Your task to perform on an android device: toggle notification dots Image 0: 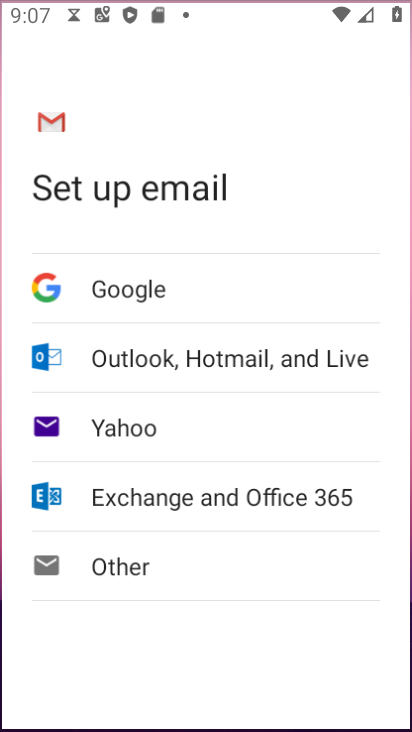
Step 0: drag from (317, 704) to (207, 195)
Your task to perform on an android device: toggle notification dots Image 1: 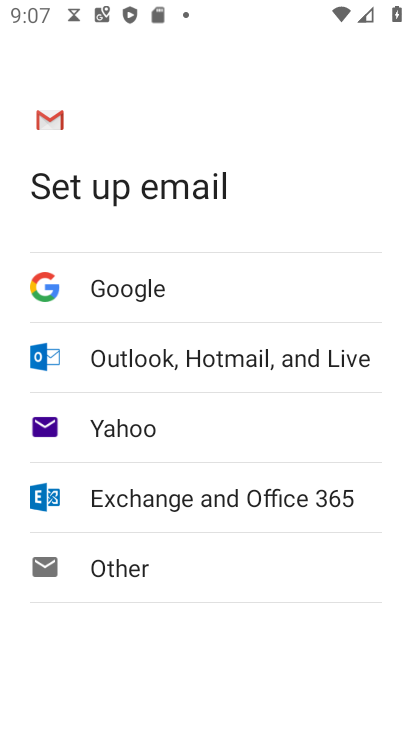
Step 1: press back button
Your task to perform on an android device: toggle notification dots Image 2: 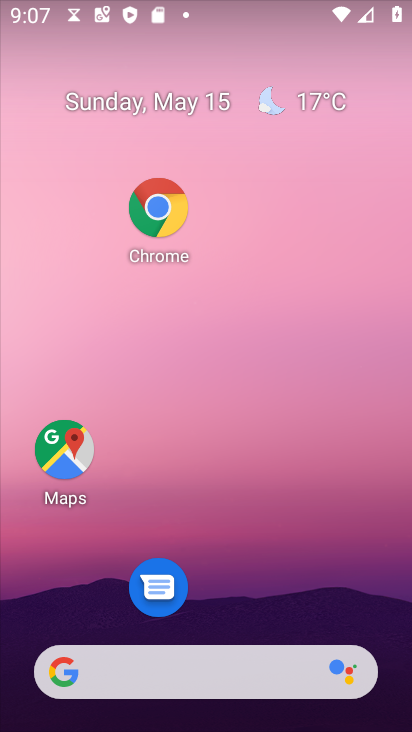
Step 2: drag from (267, 616) to (148, 108)
Your task to perform on an android device: toggle notification dots Image 3: 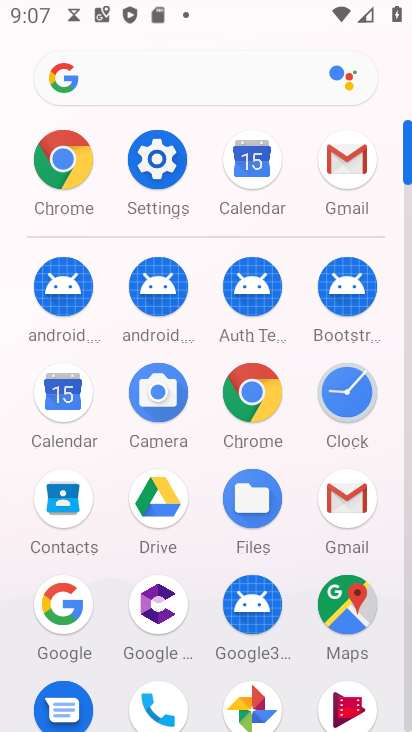
Step 3: click (159, 161)
Your task to perform on an android device: toggle notification dots Image 4: 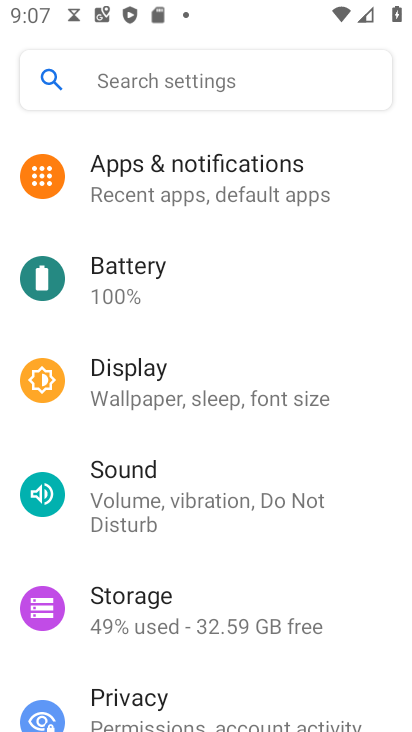
Step 4: click (159, 172)
Your task to perform on an android device: toggle notification dots Image 5: 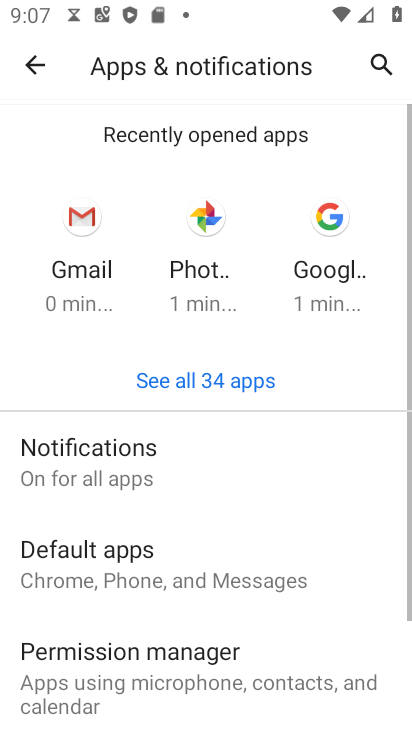
Step 5: click (79, 448)
Your task to perform on an android device: toggle notification dots Image 6: 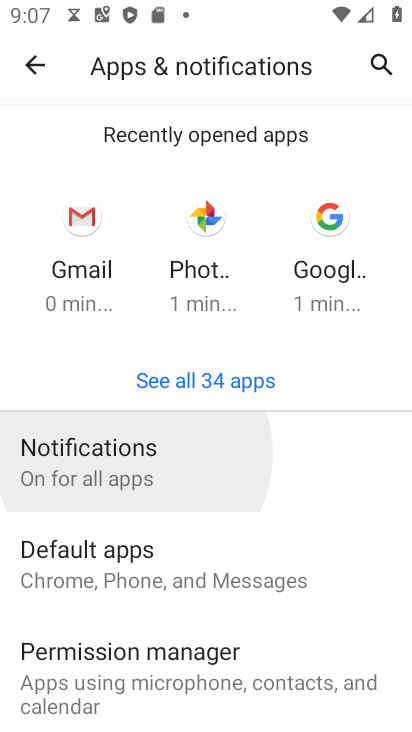
Step 6: click (80, 446)
Your task to perform on an android device: toggle notification dots Image 7: 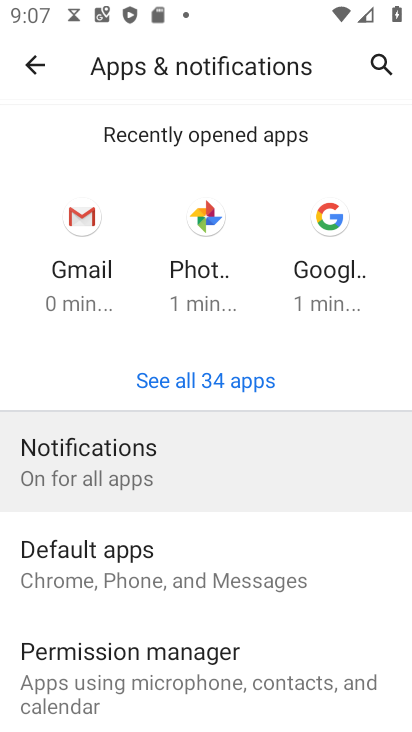
Step 7: click (80, 446)
Your task to perform on an android device: toggle notification dots Image 8: 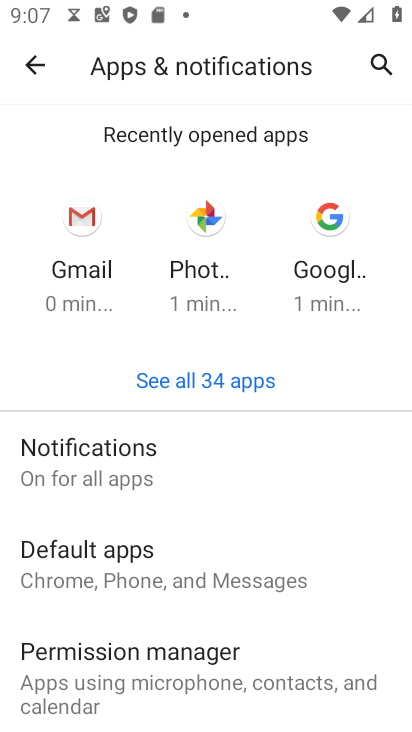
Step 8: click (79, 445)
Your task to perform on an android device: toggle notification dots Image 9: 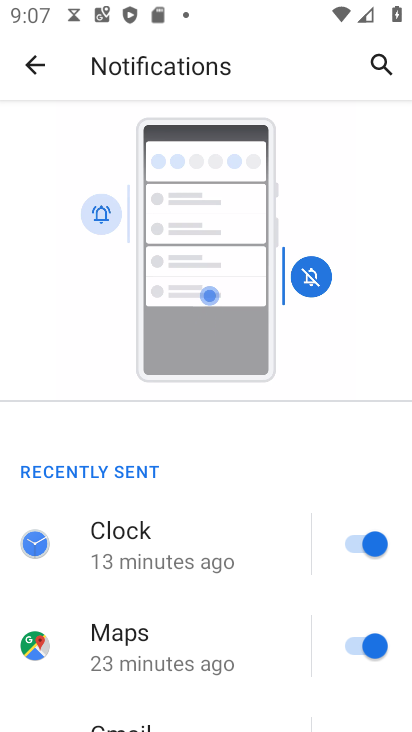
Step 9: drag from (196, 525) to (290, 147)
Your task to perform on an android device: toggle notification dots Image 10: 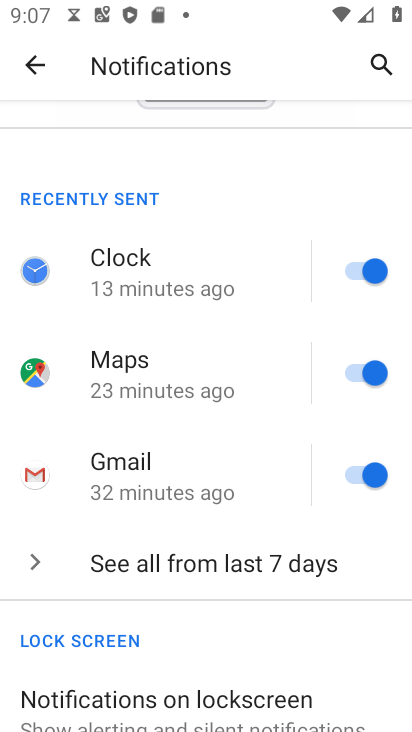
Step 10: drag from (228, 526) to (242, 104)
Your task to perform on an android device: toggle notification dots Image 11: 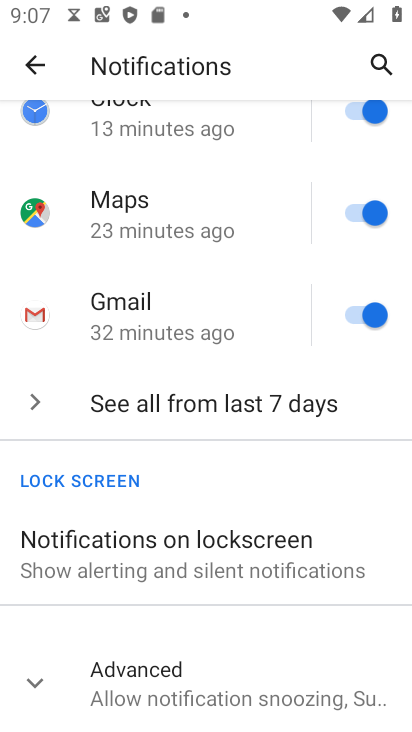
Step 11: drag from (155, 630) to (159, 242)
Your task to perform on an android device: toggle notification dots Image 12: 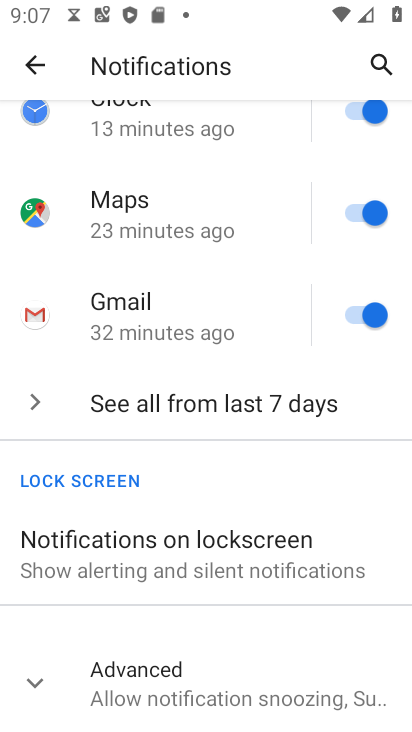
Step 12: click (136, 680)
Your task to perform on an android device: toggle notification dots Image 13: 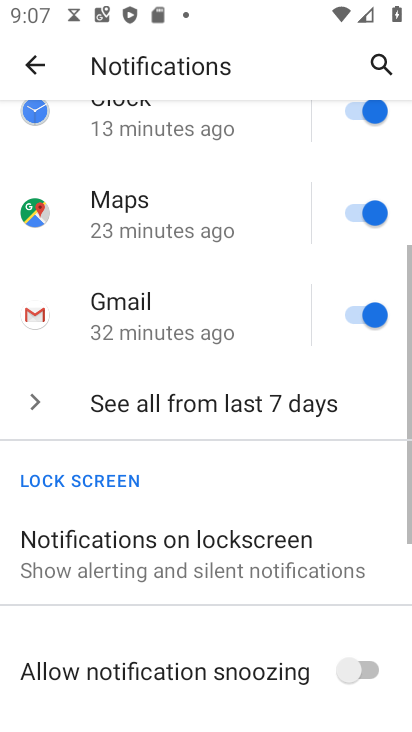
Step 13: drag from (137, 679) to (110, 403)
Your task to perform on an android device: toggle notification dots Image 14: 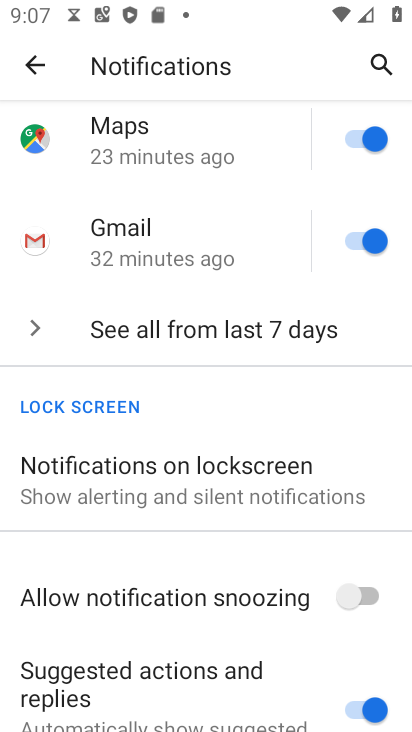
Step 14: drag from (155, 555) to (127, 169)
Your task to perform on an android device: toggle notification dots Image 15: 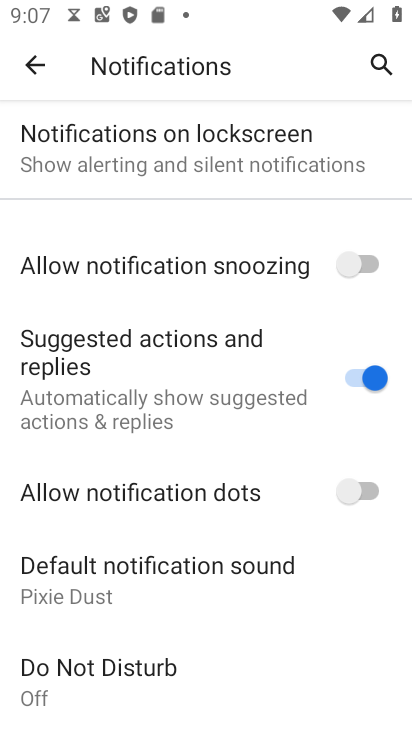
Step 15: drag from (190, 578) to (130, 365)
Your task to perform on an android device: toggle notification dots Image 16: 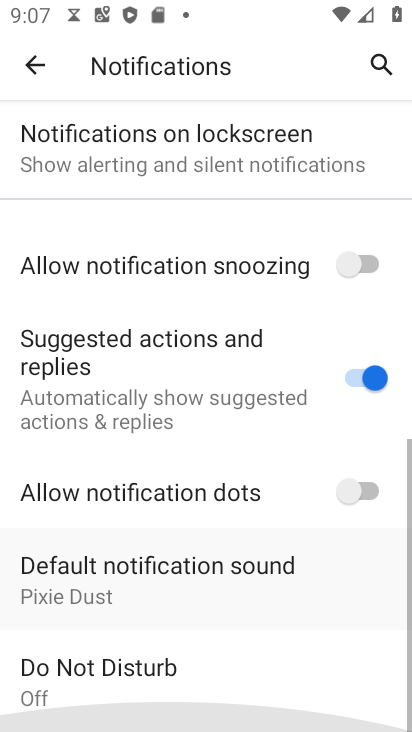
Step 16: click (200, 105)
Your task to perform on an android device: toggle notification dots Image 17: 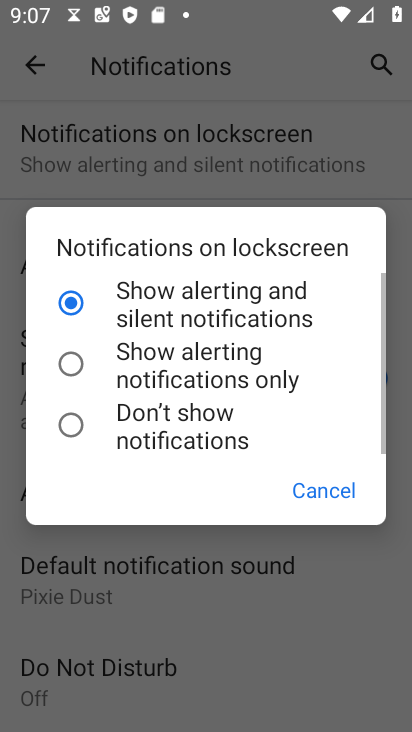
Step 17: click (349, 486)
Your task to perform on an android device: toggle notification dots Image 18: 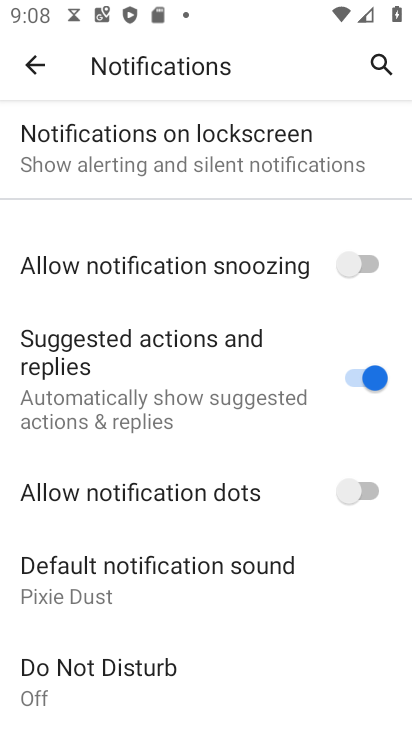
Step 18: click (348, 487)
Your task to perform on an android device: toggle notification dots Image 19: 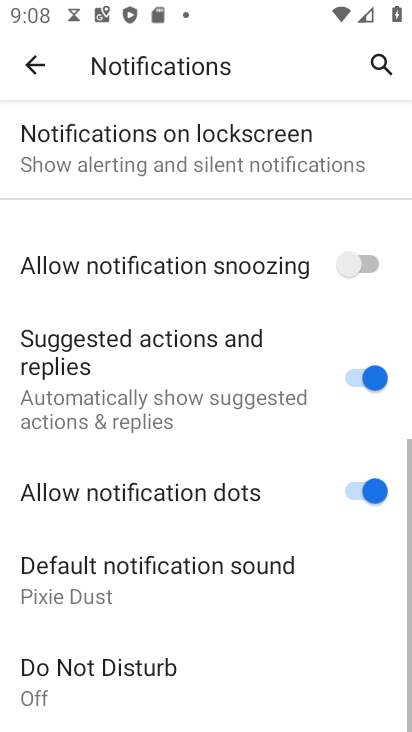
Step 19: click (346, 494)
Your task to perform on an android device: toggle notification dots Image 20: 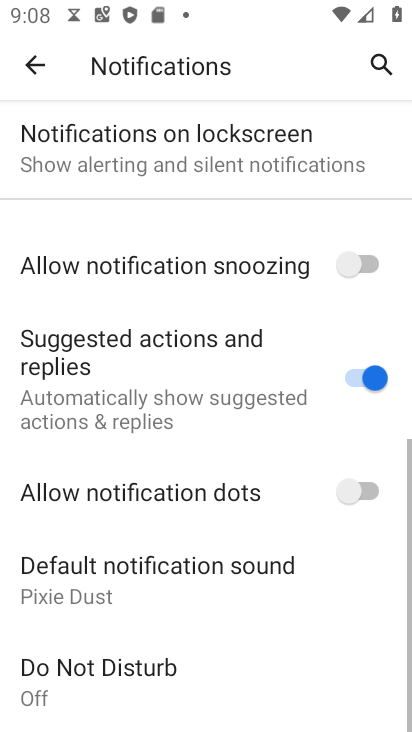
Step 20: click (358, 481)
Your task to perform on an android device: toggle notification dots Image 21: 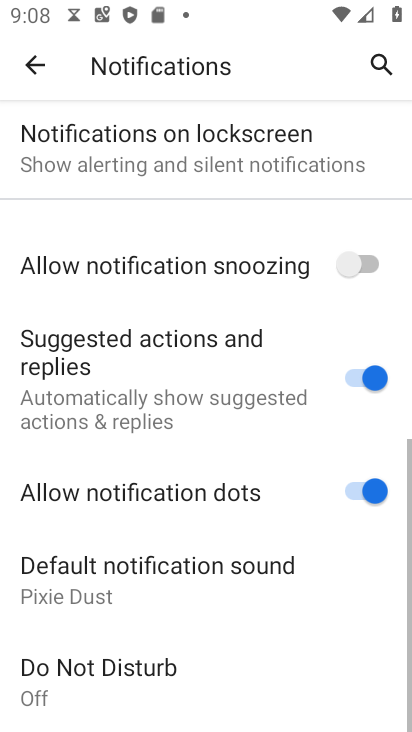
Step 21: click (351, 485)
Your task to perform on an android device: toggle notification dots Image 22: 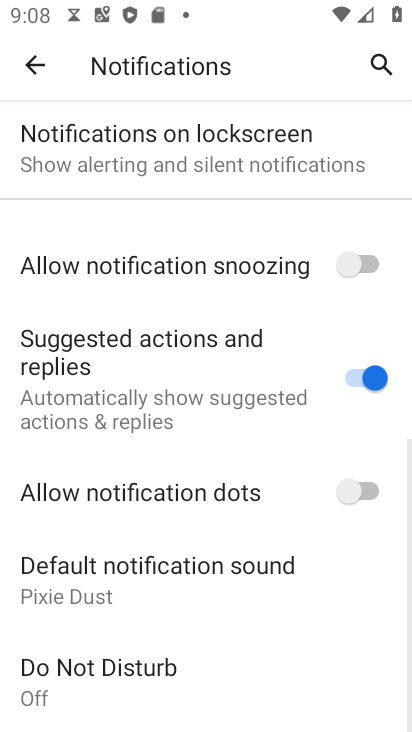
Step 22: click (349, 500)
Your task to perform on an android device: toggle notification dots Image 23: 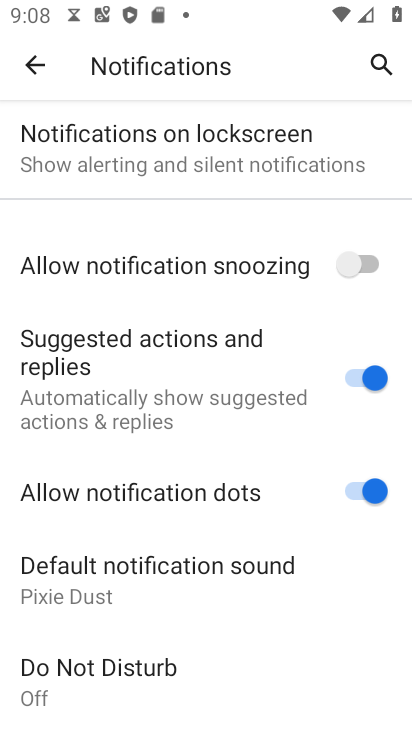
Step 23: task complete